Your task to perform on an android device: find snoozed emails in the gmail app Image 0: 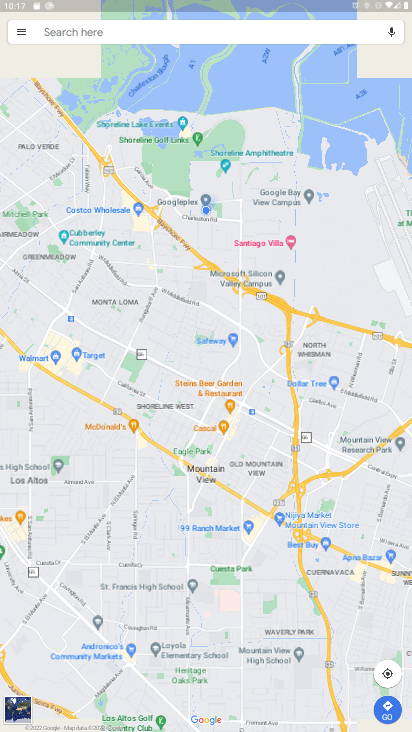
Step 0: press home button
Your task to perform on an android device: find snoozed emails in the gmail app Image 1: 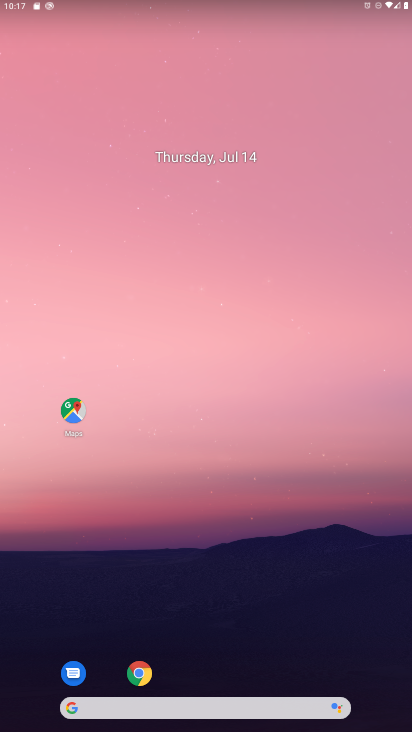
Step 1: drag from (182, 707) to (220, 235)
Your task to perform on an android device: find snoozed emails in the gmail app Image 2: 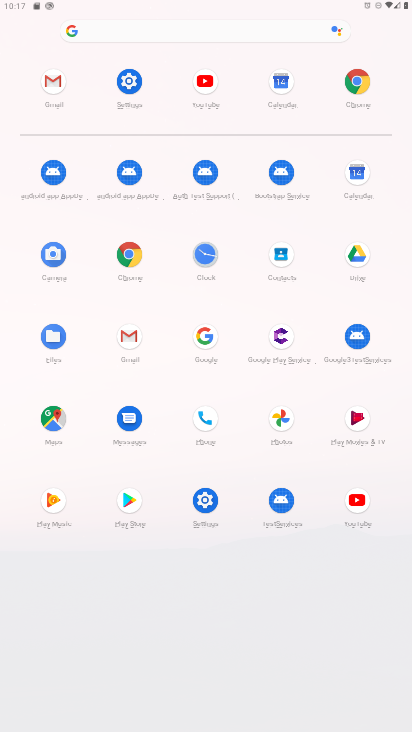
Step 2: click (53, 78)
Your task to perform on an android device: find snoozed emails in the gmail app Image 3: 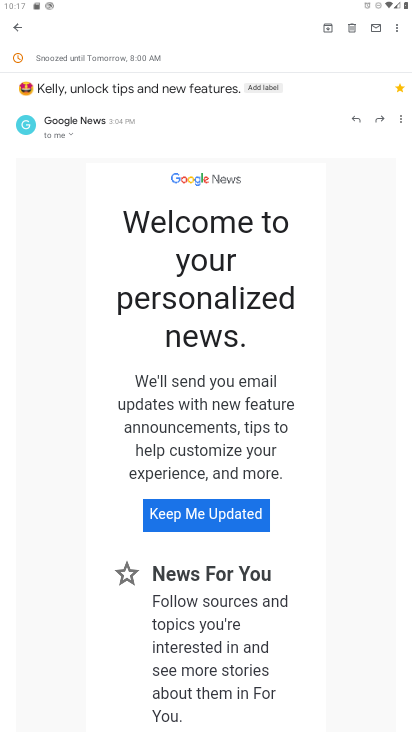
Step 3: task complete